Your task to perform on an android device: Open internet settings Image 0: 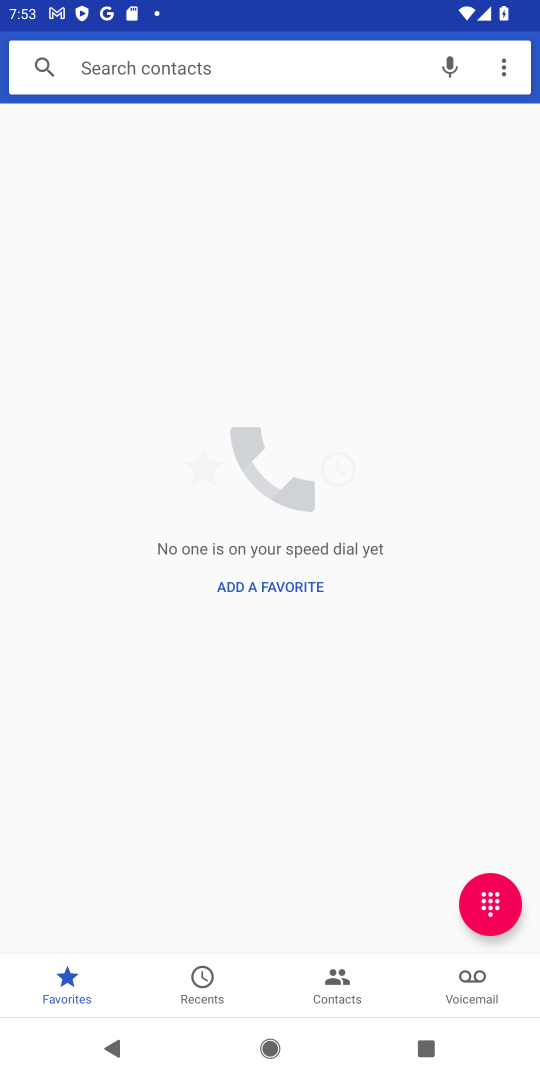
Step 0: press home button
Your task to perform on an android device: Open internet settings Image 1: 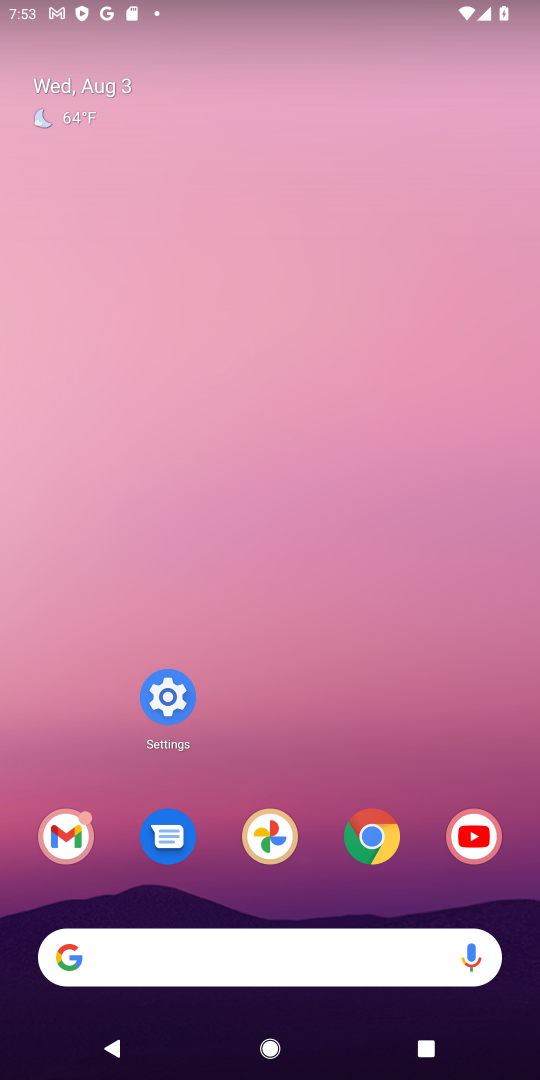
Step 1: drag from (463, 816) to (340, 77)
Your task to perform on an android device: Open internet settings Image 2: 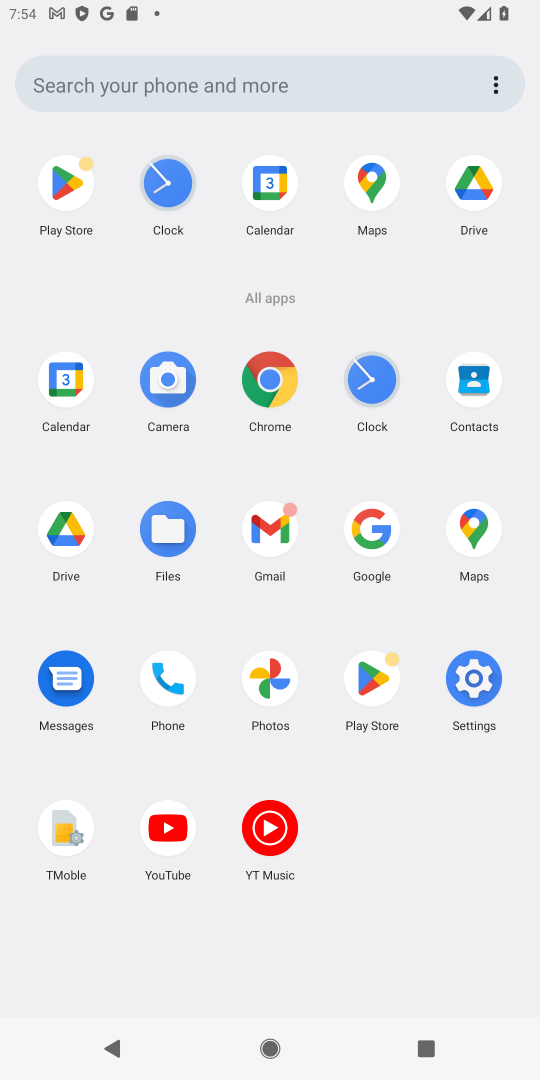
Step 2: click (464, 684)
Your task to perform on an android device: Open internet settings Image 3: 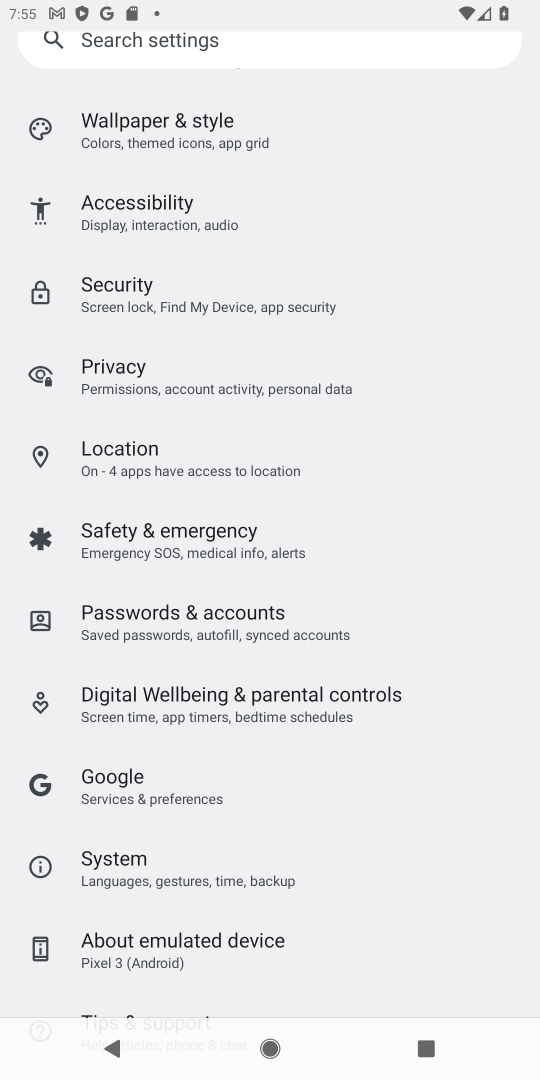
Step 3: task complete